Your task to perform on an android device: Check the news Image 0: 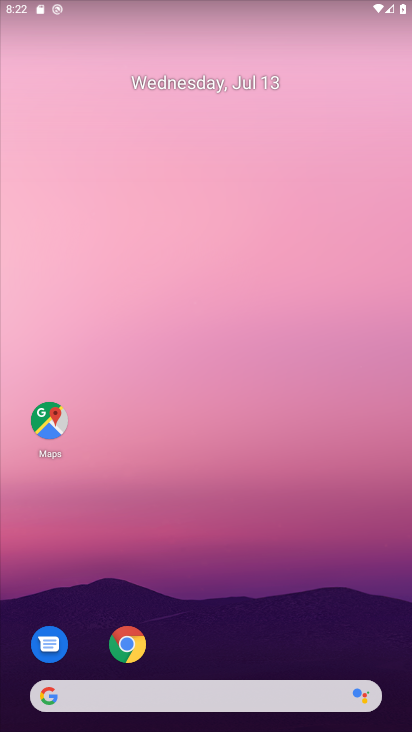
Step 0: click (193, 688)
Your task to perform on an android device: Check the news Image 1: 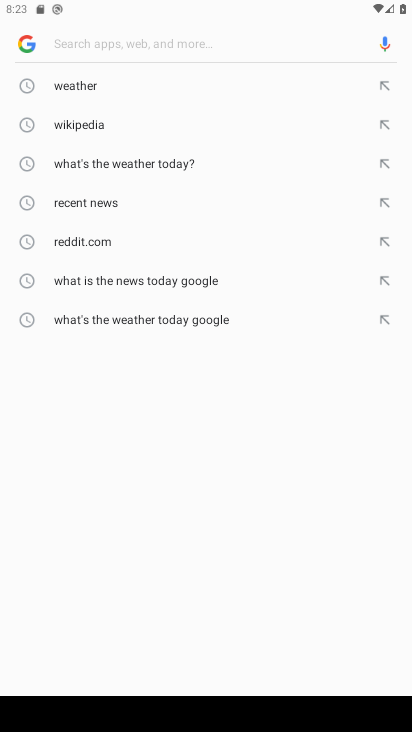
Step 1: type "news"
Your task to perform on an android device: Check the news Image 2: 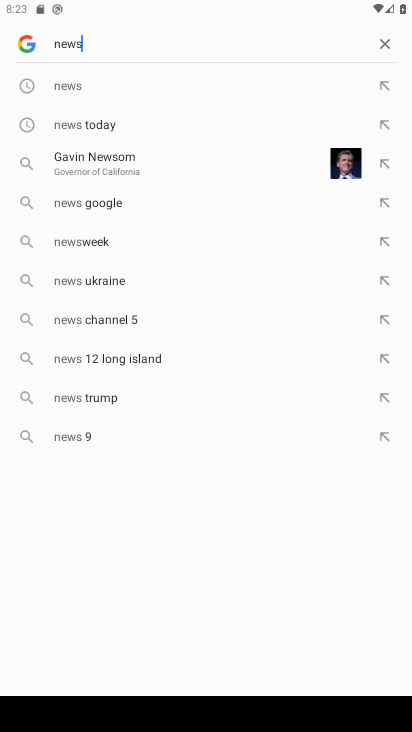
Step 2: click (86, 89)
Your task to perform on an android device: Check the news Image 3: 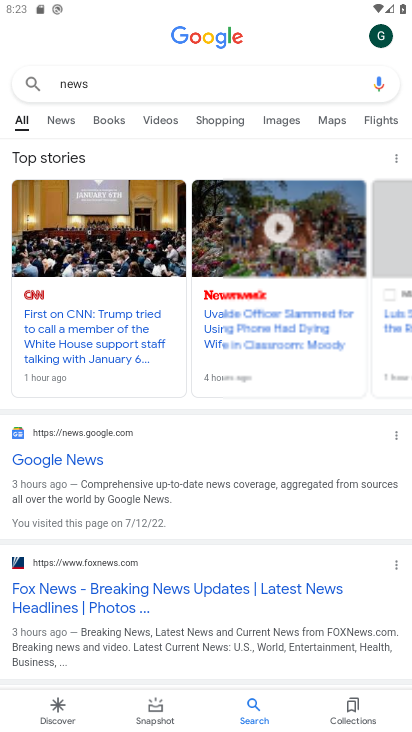
Step 3: click (60, 115)
Your task to perform on an android device: Check the news Image 4: 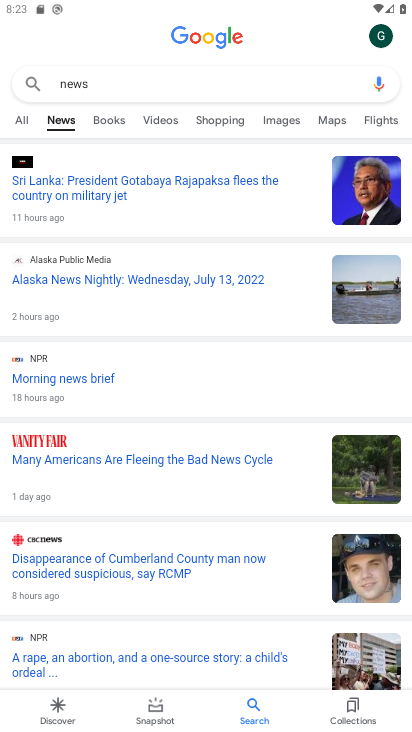
Step 4: task complete